Your task to perform on an android device: Find coffee shops on Maps Image 0: 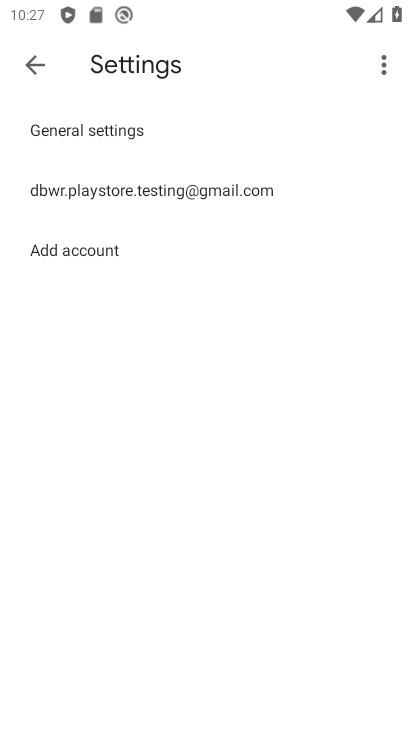
Step 0: press home button
Your task to perform on an android device: Find coffee shops on Maps Image 1: 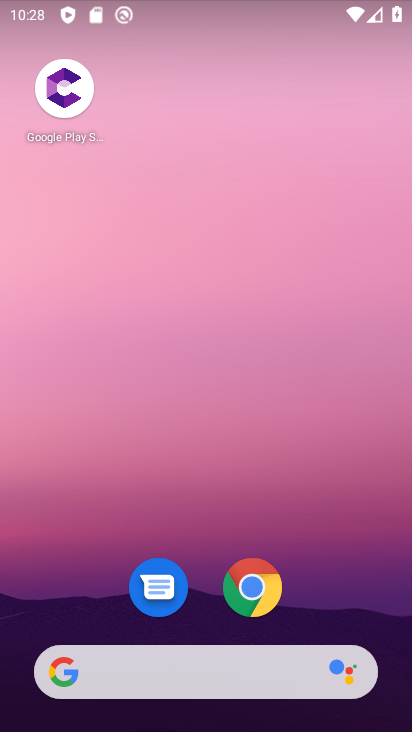
Step 1: drag from (362, 527) to (391, 93)
Your task to perform on an android device: Find coffee shops on Maps Image 2: 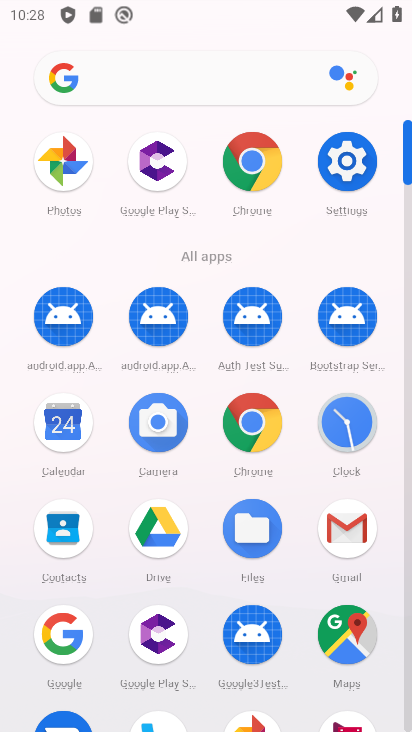
Step 2: click (347, 628)
Your task to perform on an android device: Find coffee shops on Maps Image 3: 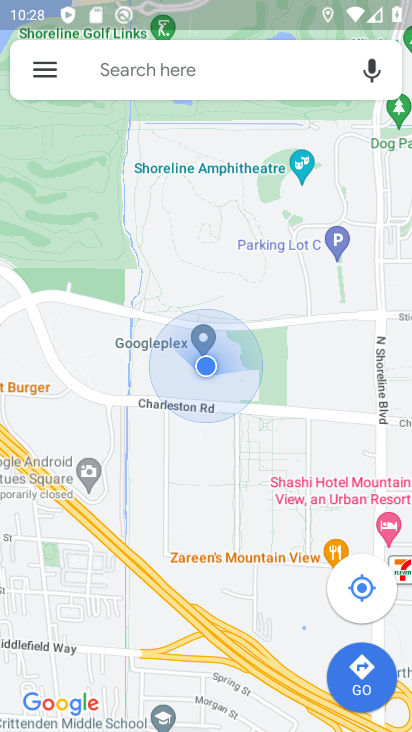
Step 3: click (158, 81)
Your task to perform on an android device: Find coffee shops on Maps Image 4: 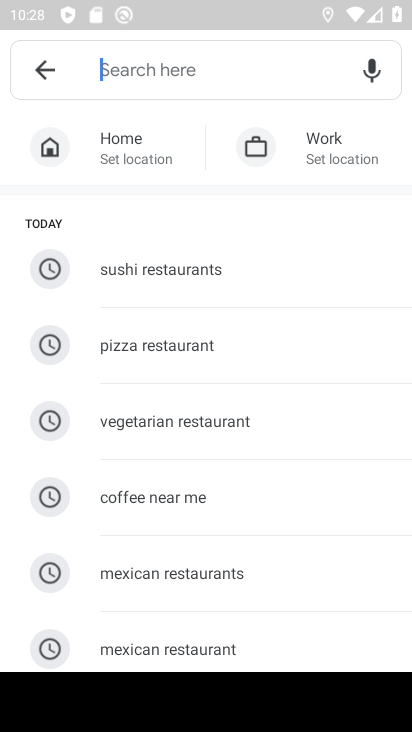
Step 4: type "coffee shops"
Your task to perform on an android device: Find coffee shops on Maps Image 5: 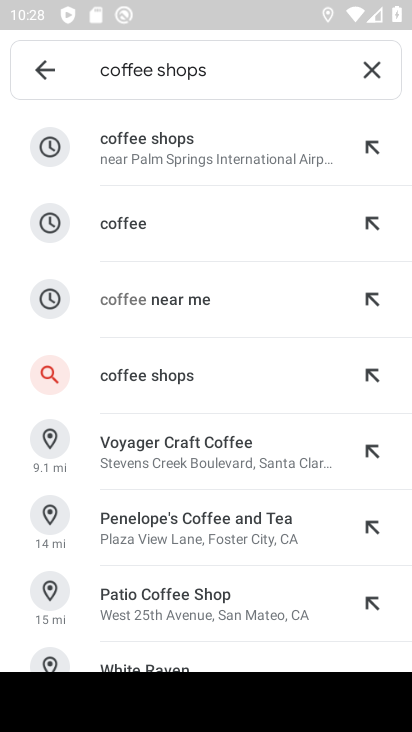
Step 5: click (167, 155)
Your task to perform on an android device: Find coffee shops on Maps Image 6: 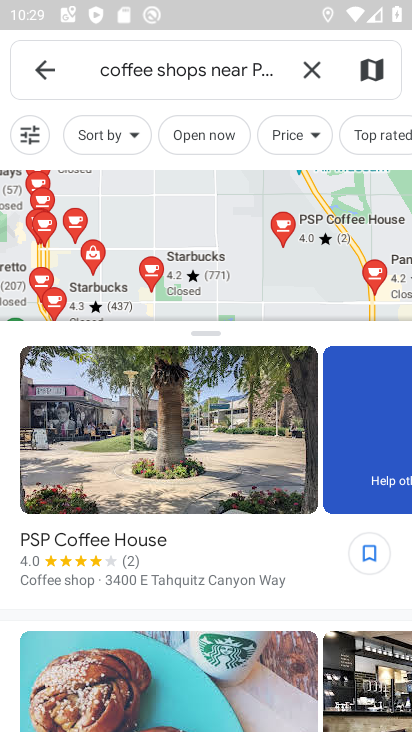
Step 6: task complete